Your task to perform on an android device: toggle location history Image 0: 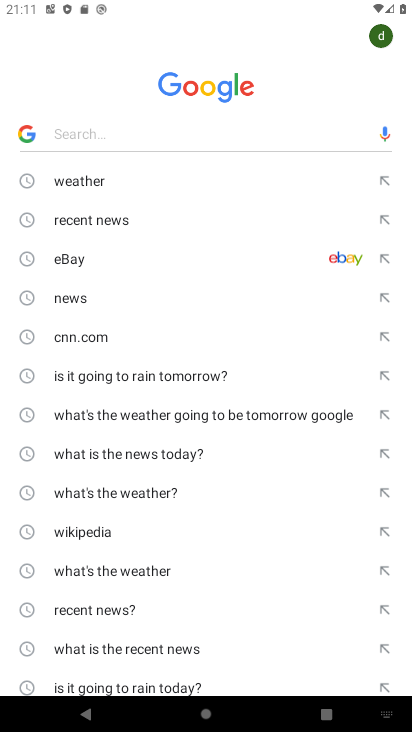
Step 0: press home button
Your task to perform on an android device: toggle location history Image 1: 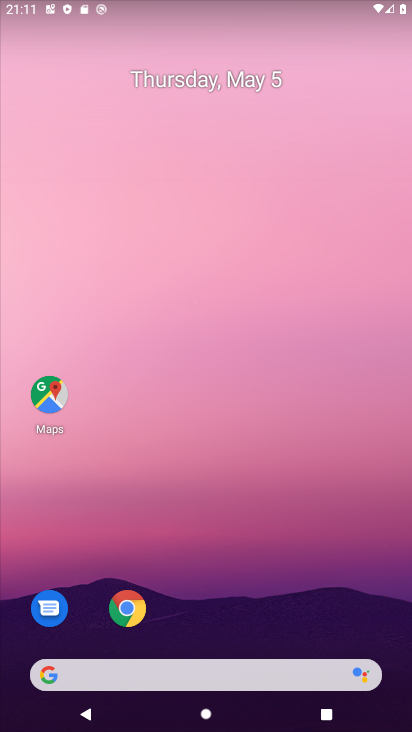
Step 1: drag from (290, 651) to (377, 3)
Your task to perform on an android device: toggle location history Image 2: 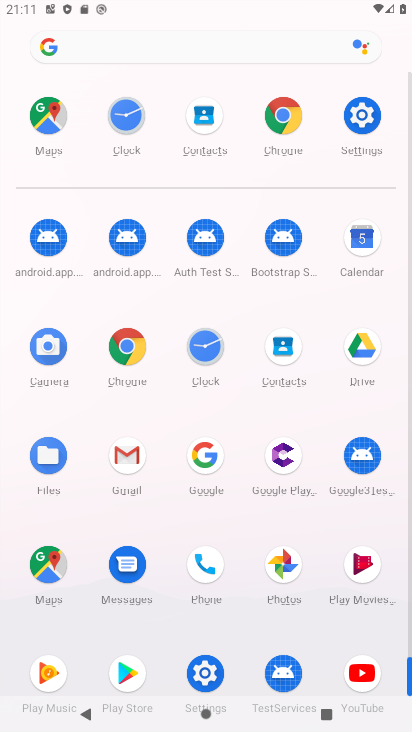
Step 2: click (351, 113)
Your task to perform on an android device: toggle location history Image 3: 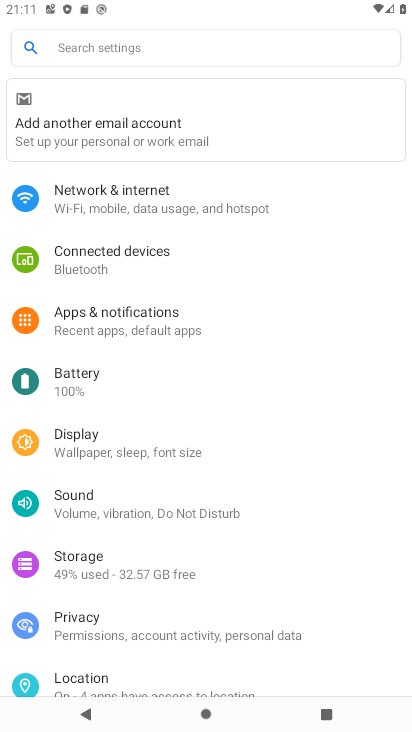
Step 3: click (141, 679)
Your task to perform on an android device: toggle location history Image 4: 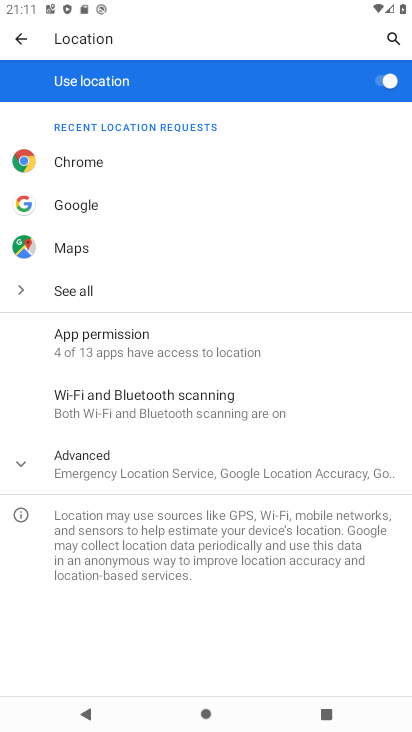
Step 4: click (95, 465)
Your task to perform on an android device: toggle location history Image 5: 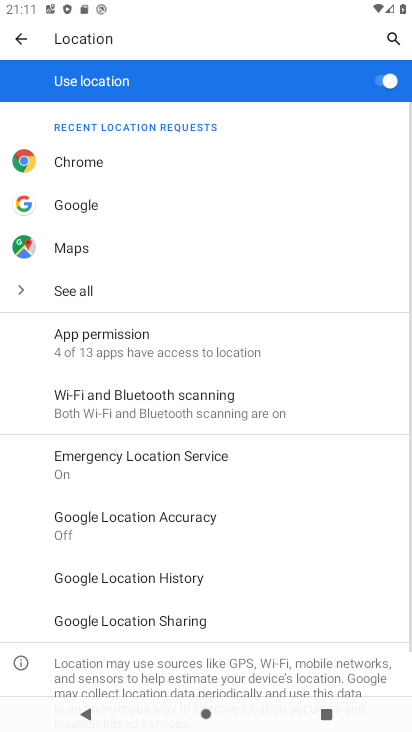
Step 5: click (162, 569)
Your task to perform on an android device: toggle location history Image 6: 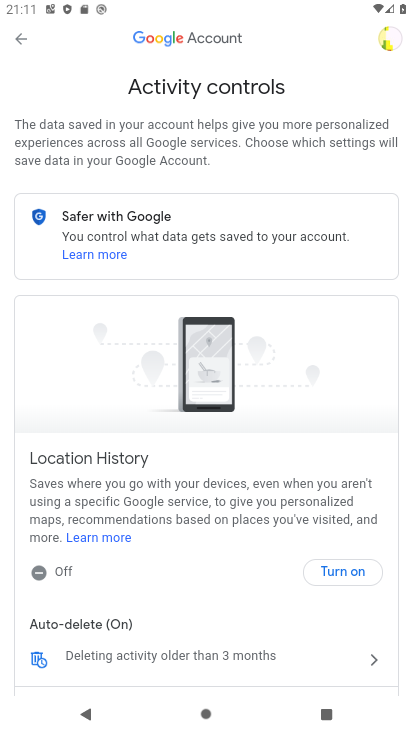
Step 6: click (350, 573)
Your task to perform on an android device: toggle location history Image 7: 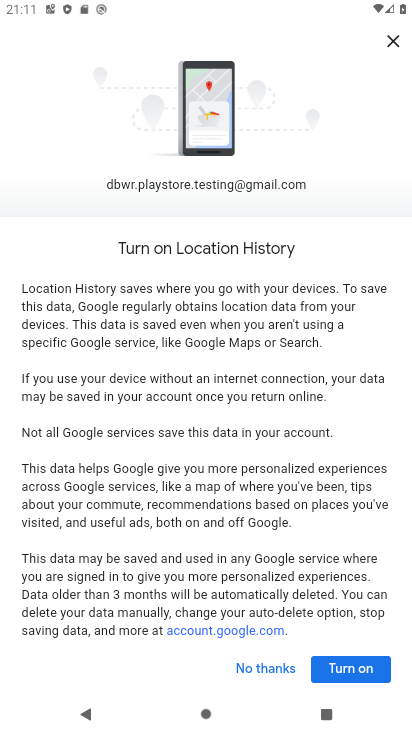
Step 7: click (374, 672)
Your task to perform on an android device: toggle location history Image 8: 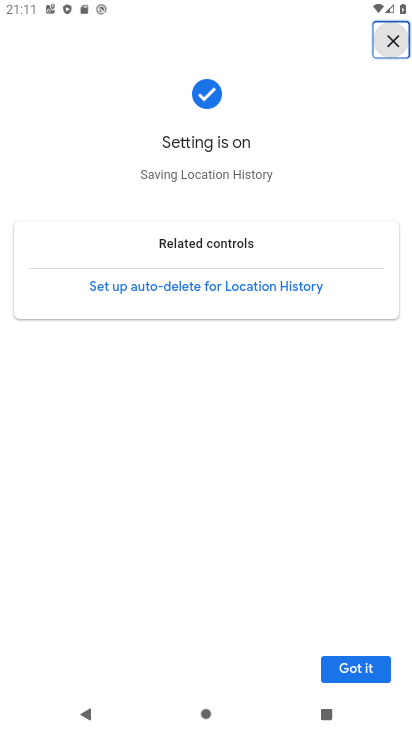
Step 8: task complete